Your task to perform on an android device: turn off sleep mode Image 0: 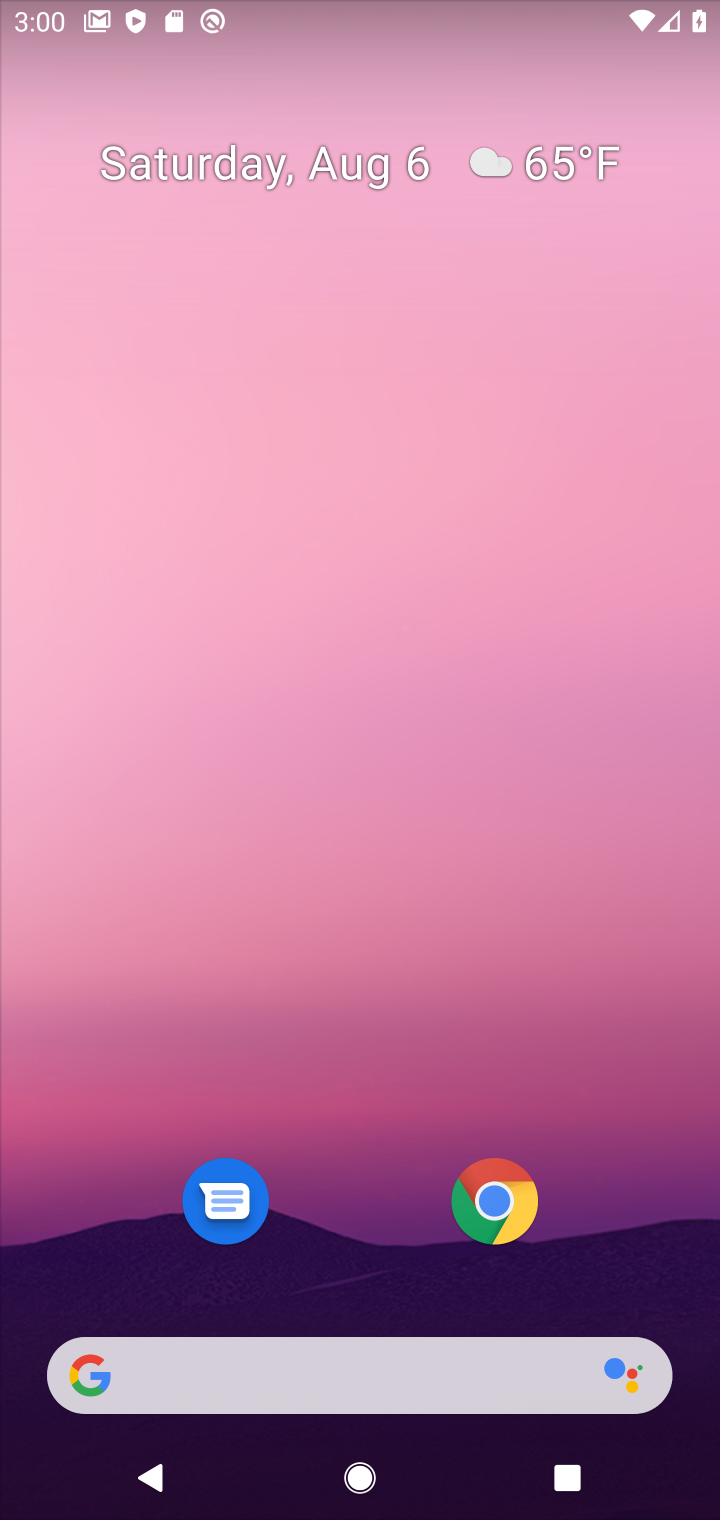
Step 0: drag from (504, 300) to (554, 15)
Your task to perform on an android device: turn off sleep mode Image 1: 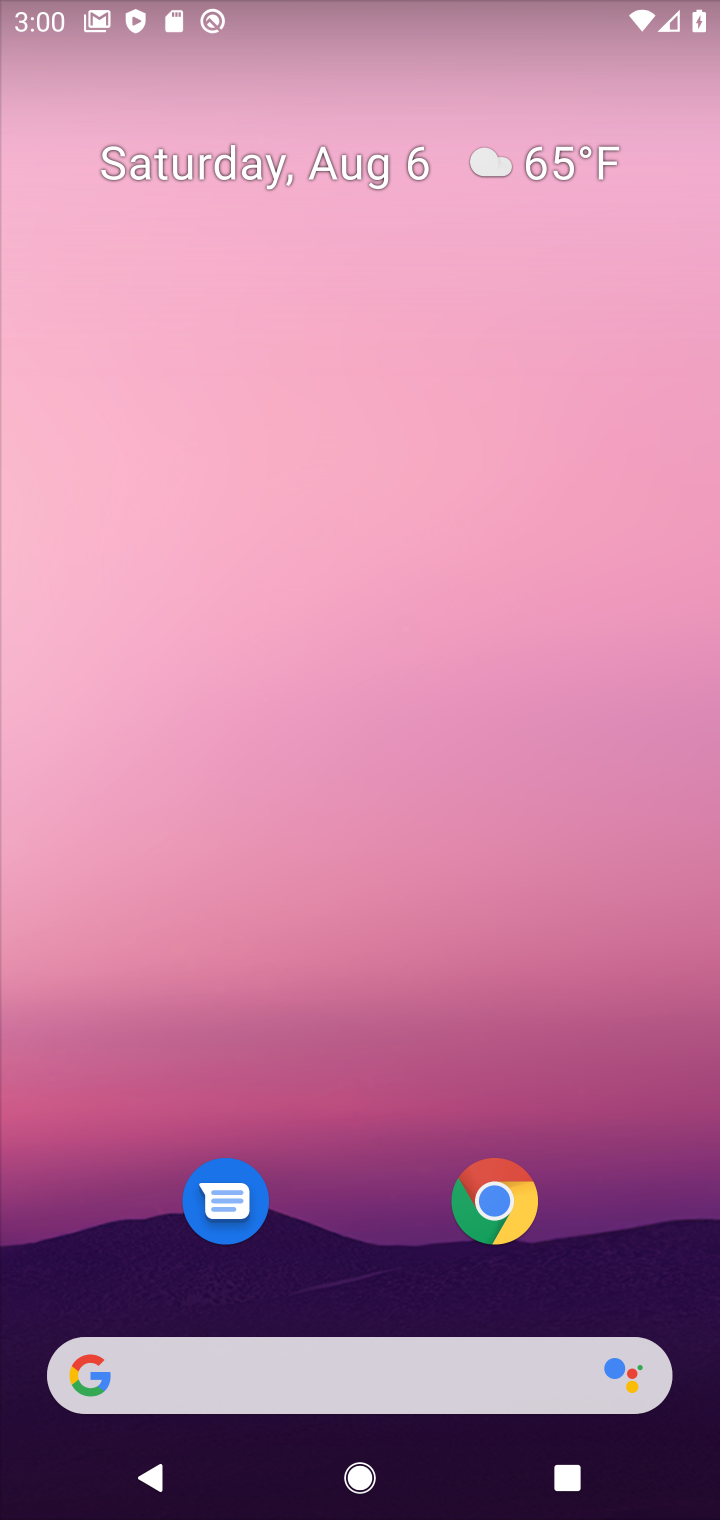
Step 1: click (280, 157)
Your task to perform on an android device: turn off sleep mode Image 2: 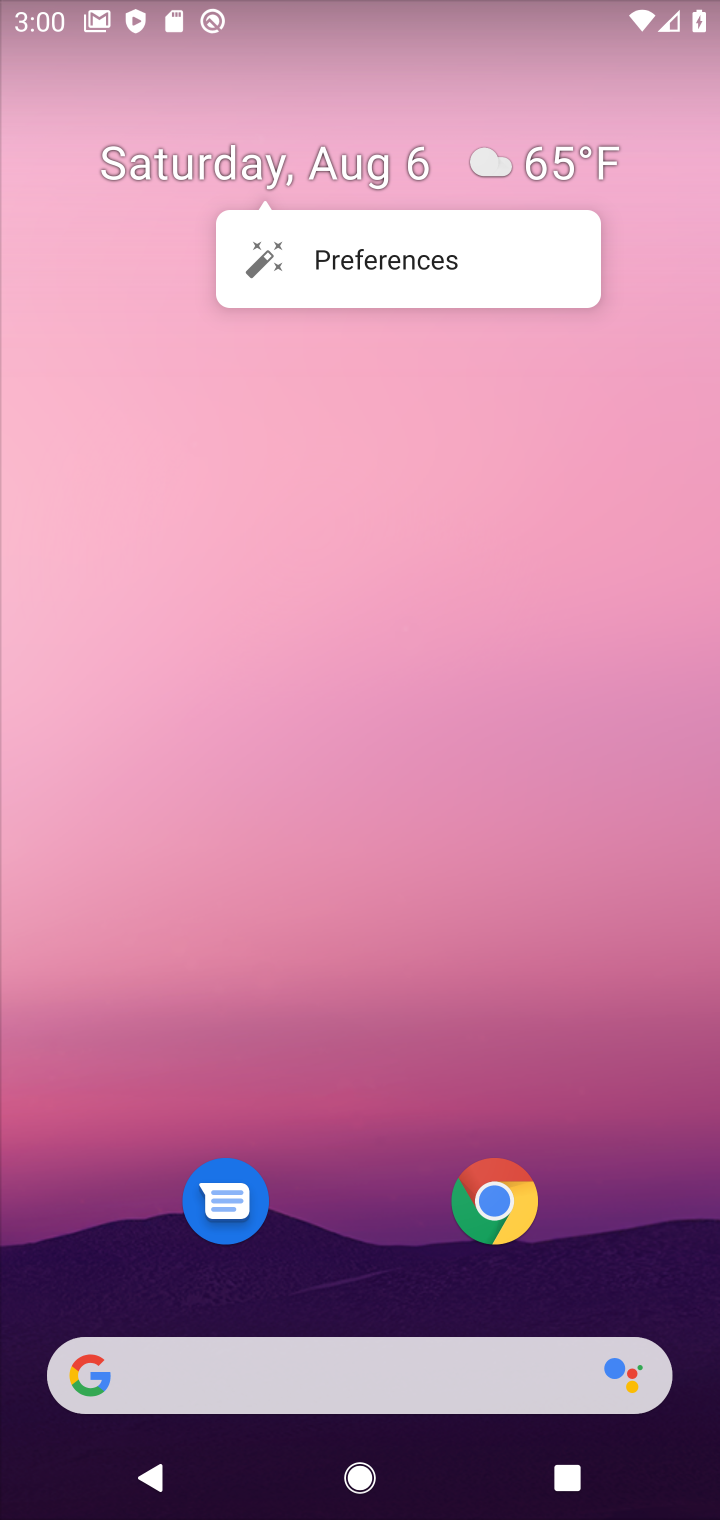
Step 2: click (353, 1499)
Your task to perform on an android device: turn off sleep mode Image 3: 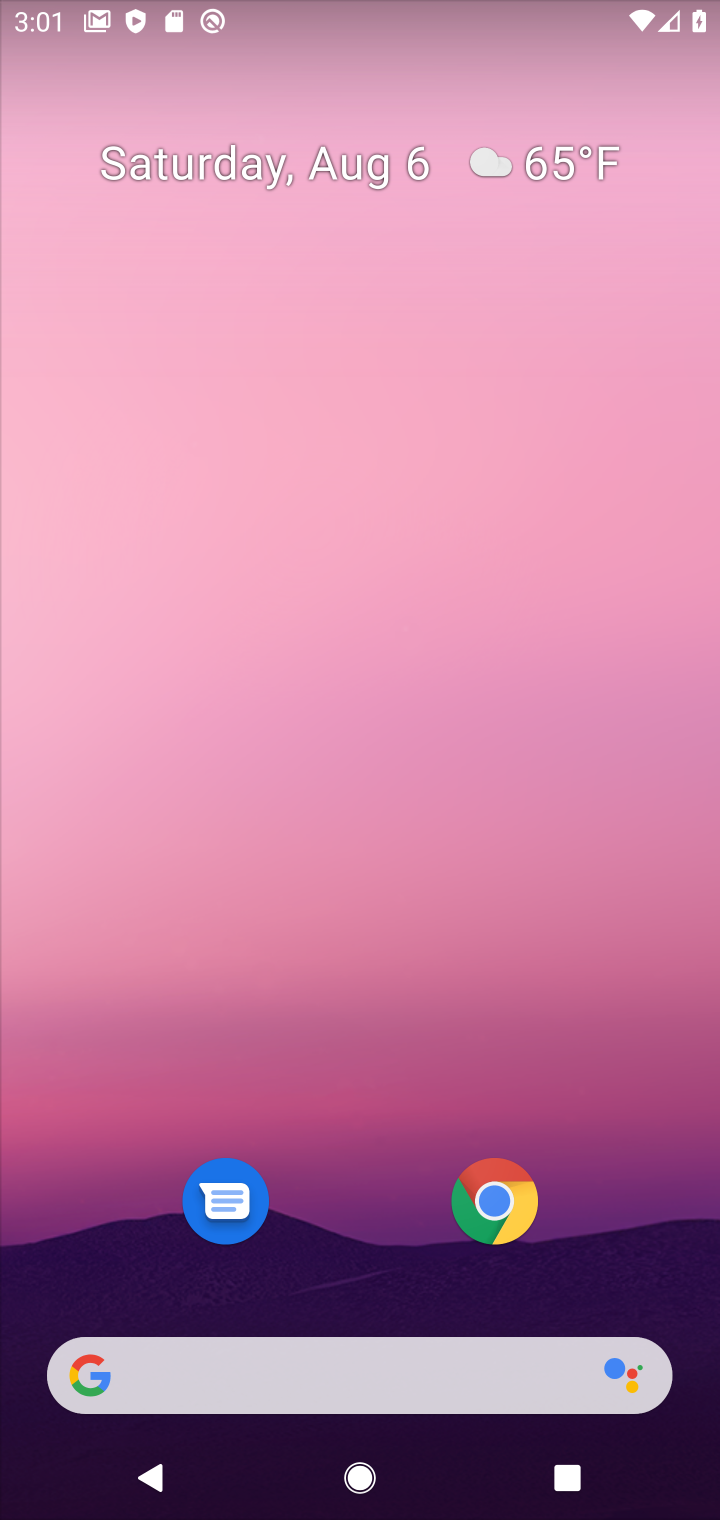
Step 3: drag from (251, 1464) to (455, 16)
Your task to perform on an android device: turn off sleep mode Image 4: 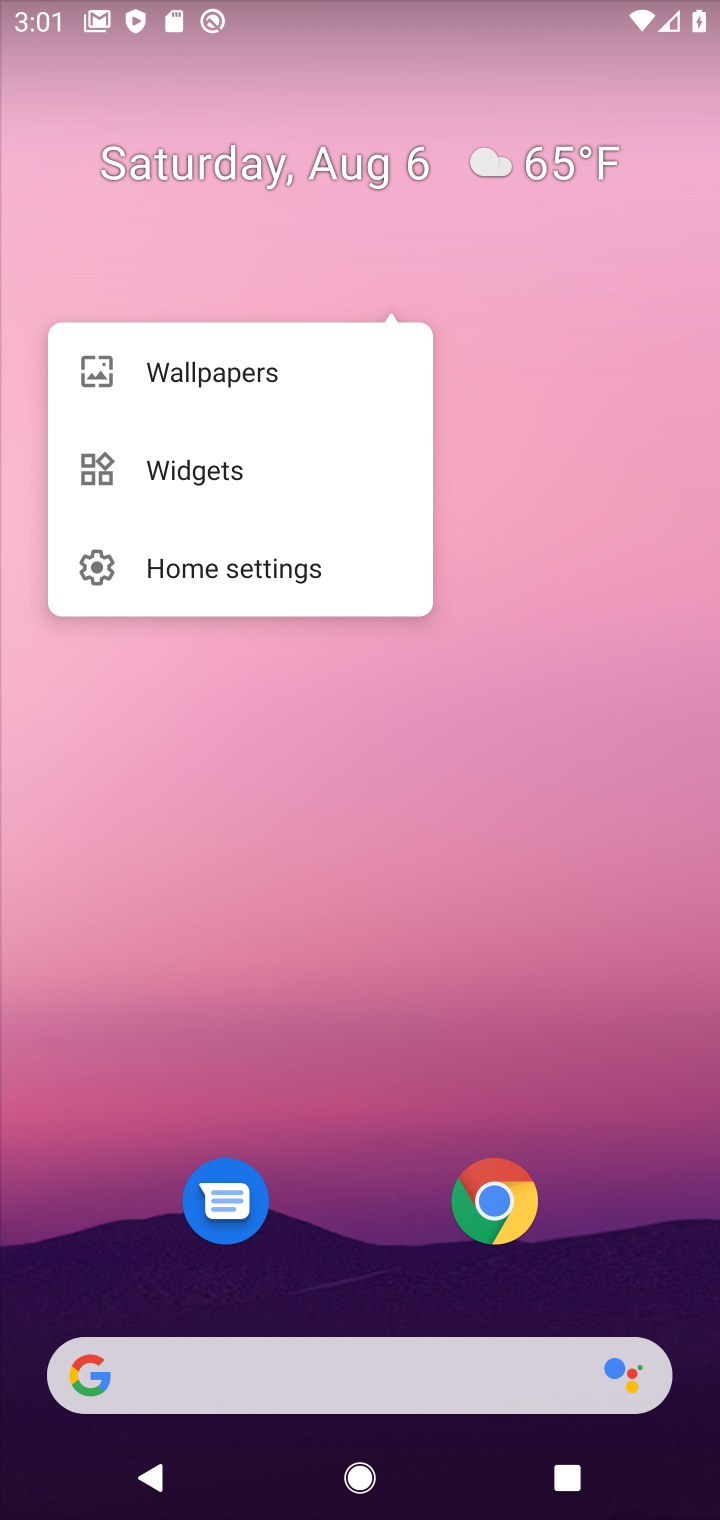
Step 4: click (362, 1491)
Your task to perform on an android device: turn off sleep mode Image 5: 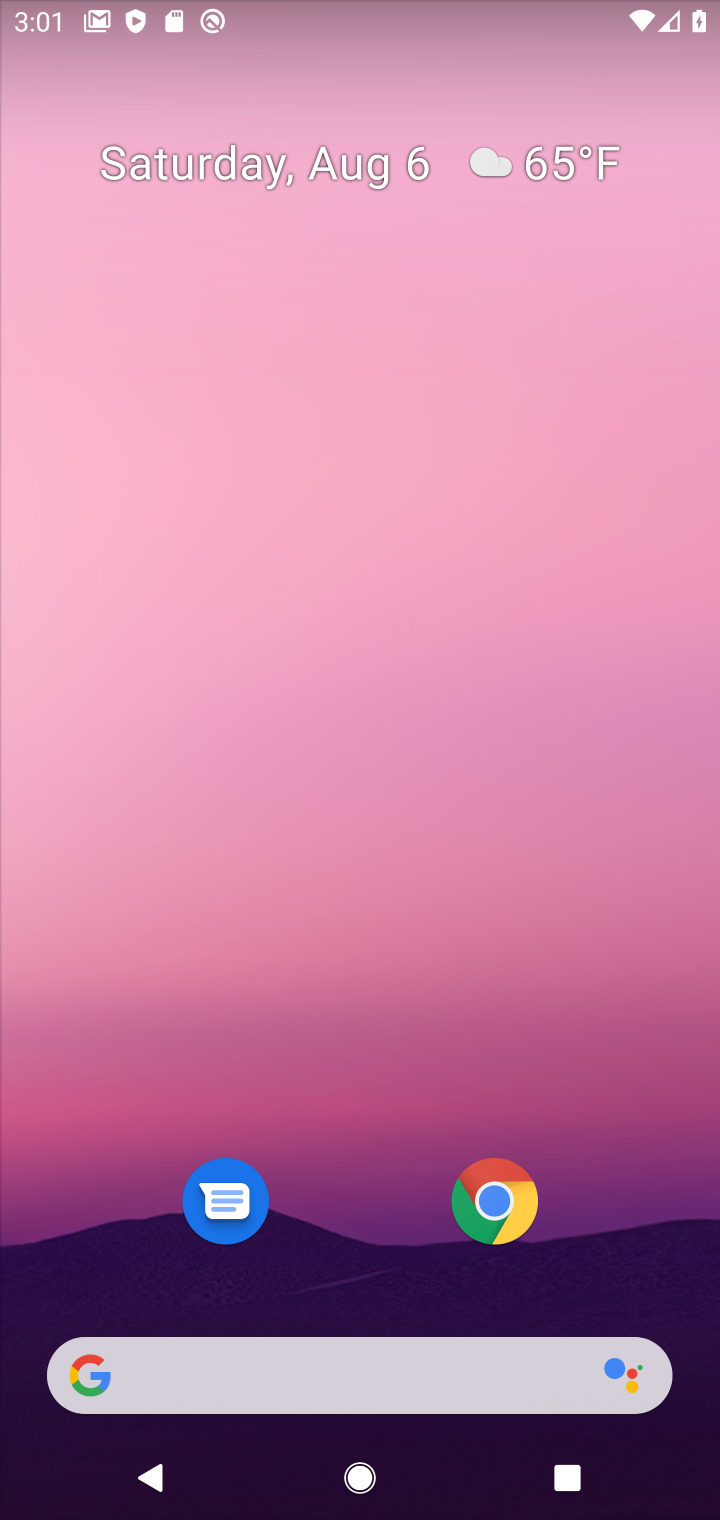
Step 5: drag from (395, 886) to (512, 74)
Your task to perform on an android device: turn off sleep mode Image 6: 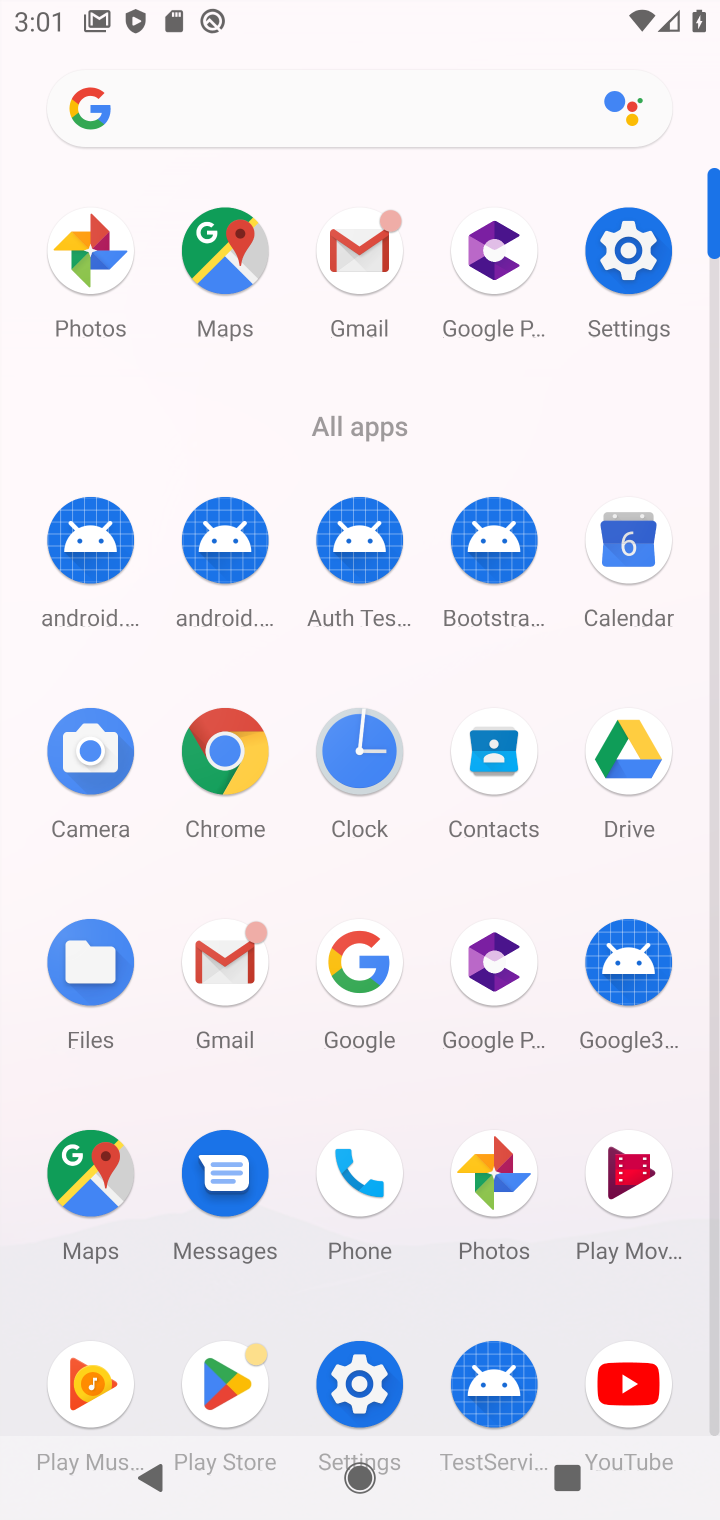
Step 6: click (646, 226)
Your task to perform on an android device: turn off sleep mode Image 7: 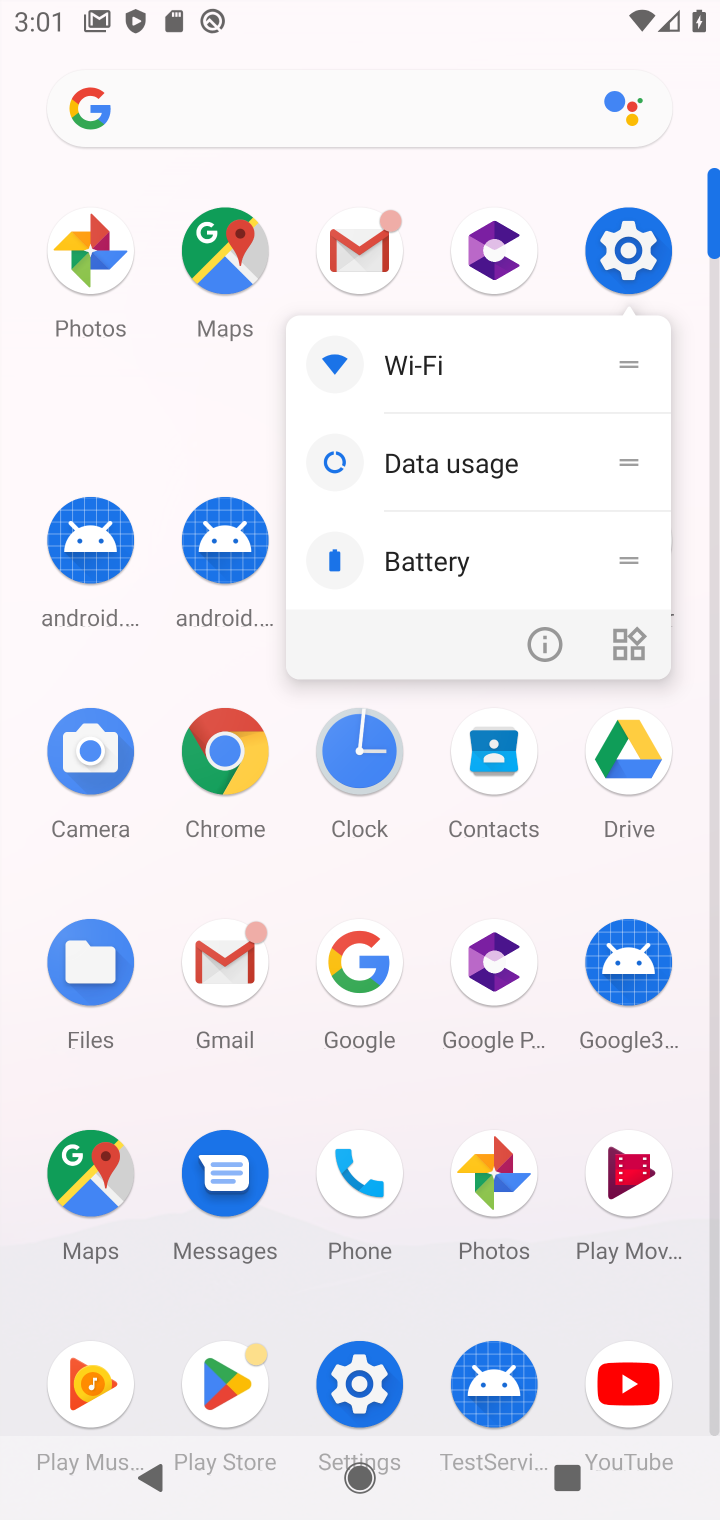
Step 7: click (646, 226)
Your task to perform on an android device: turn off sleep mode Image 8: 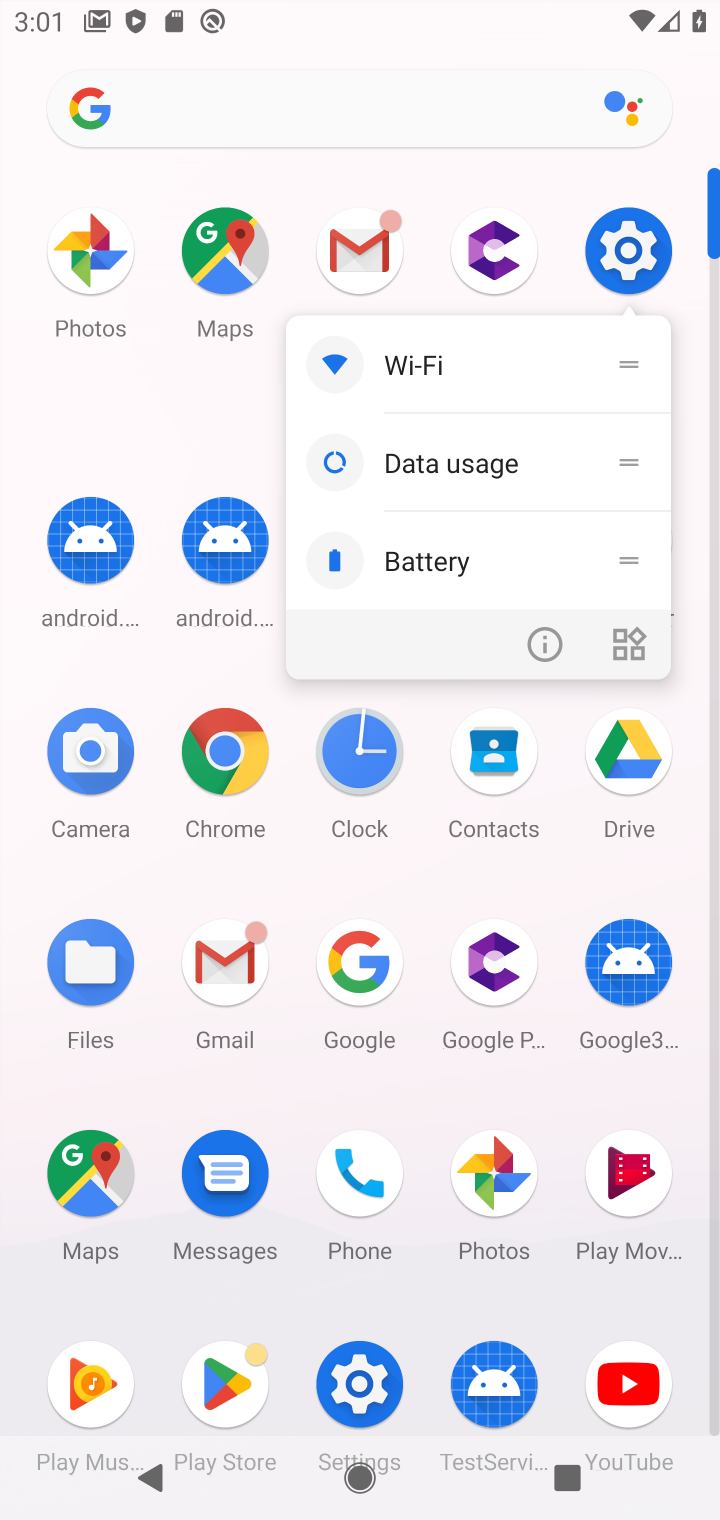
Step 8: click (646, 226)
Your task to perform on an android device: turn off sleep mode Image 9: 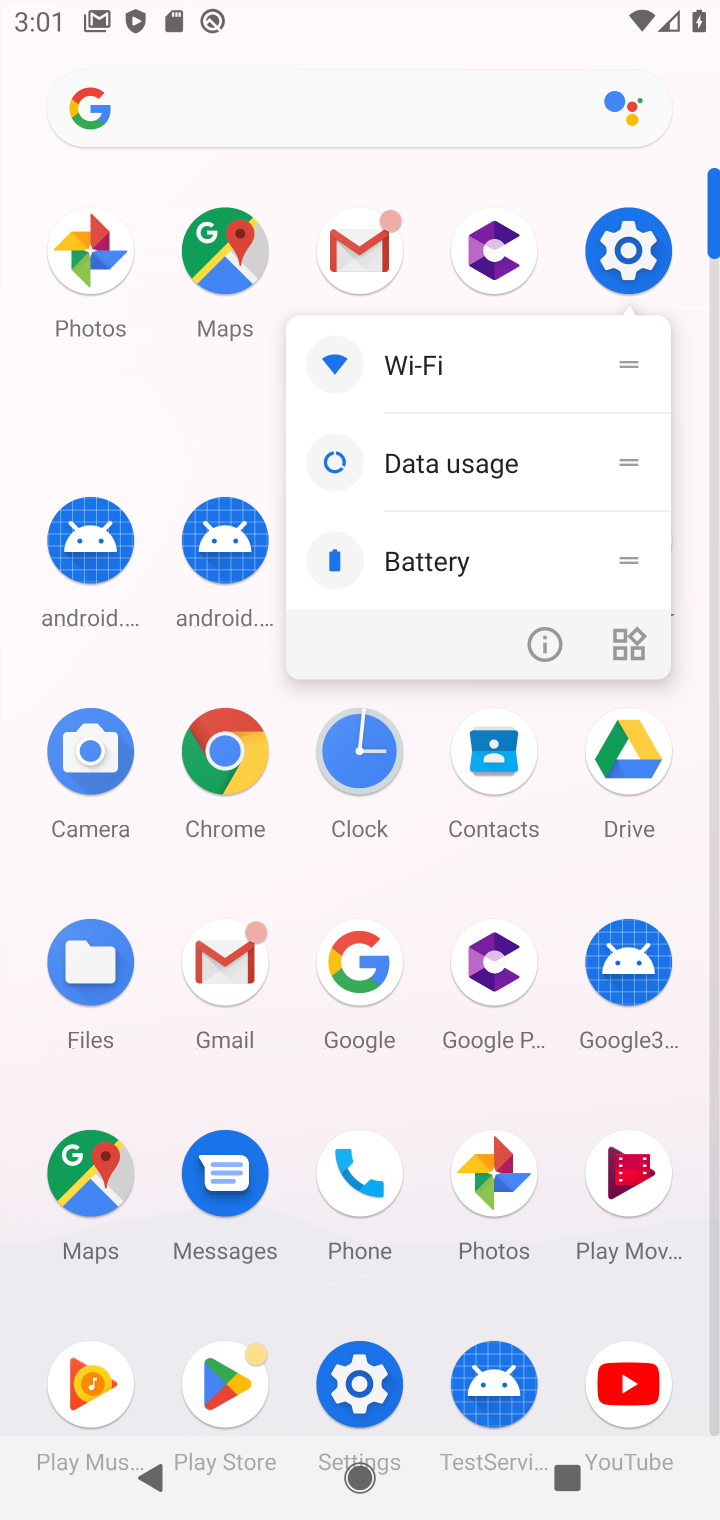
Step 9: click (611, 230)
Your task to perform on an android device: turn off sleep mode Image 10: 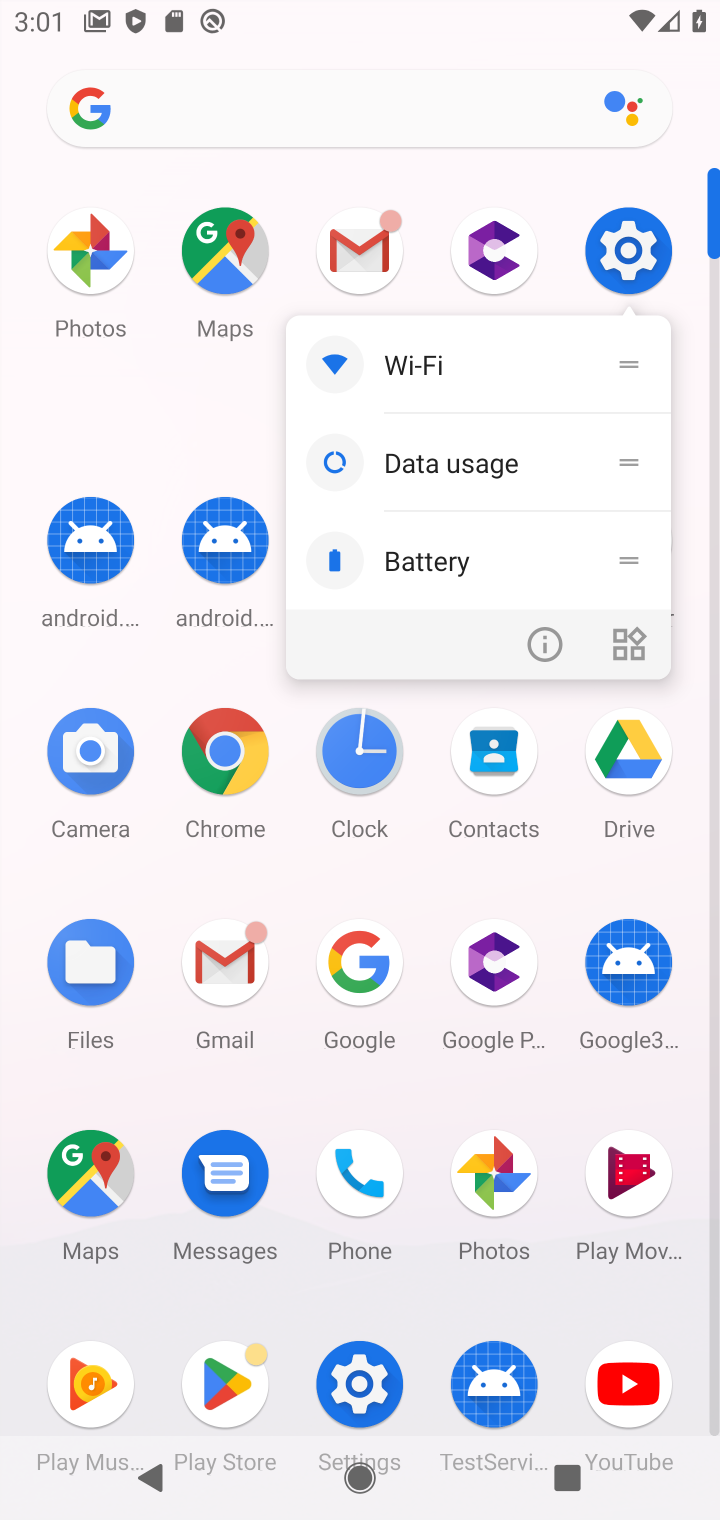
Step 10: click (636, 271)
Your task to perform on an android device: turn off sleep mode Image 11: 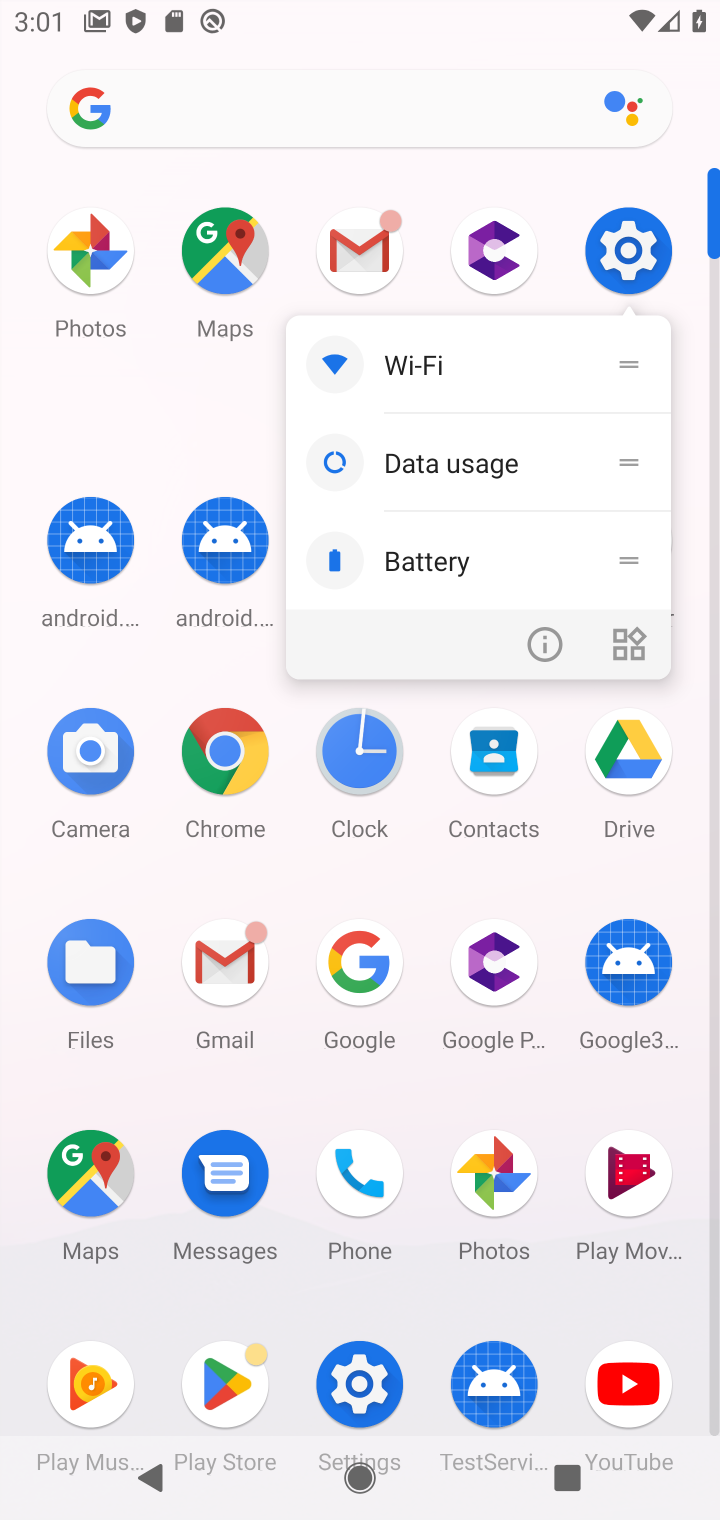
Step 11: click (636, 271)
Your task to perform on an android device: turn off sleep mode Image 12: 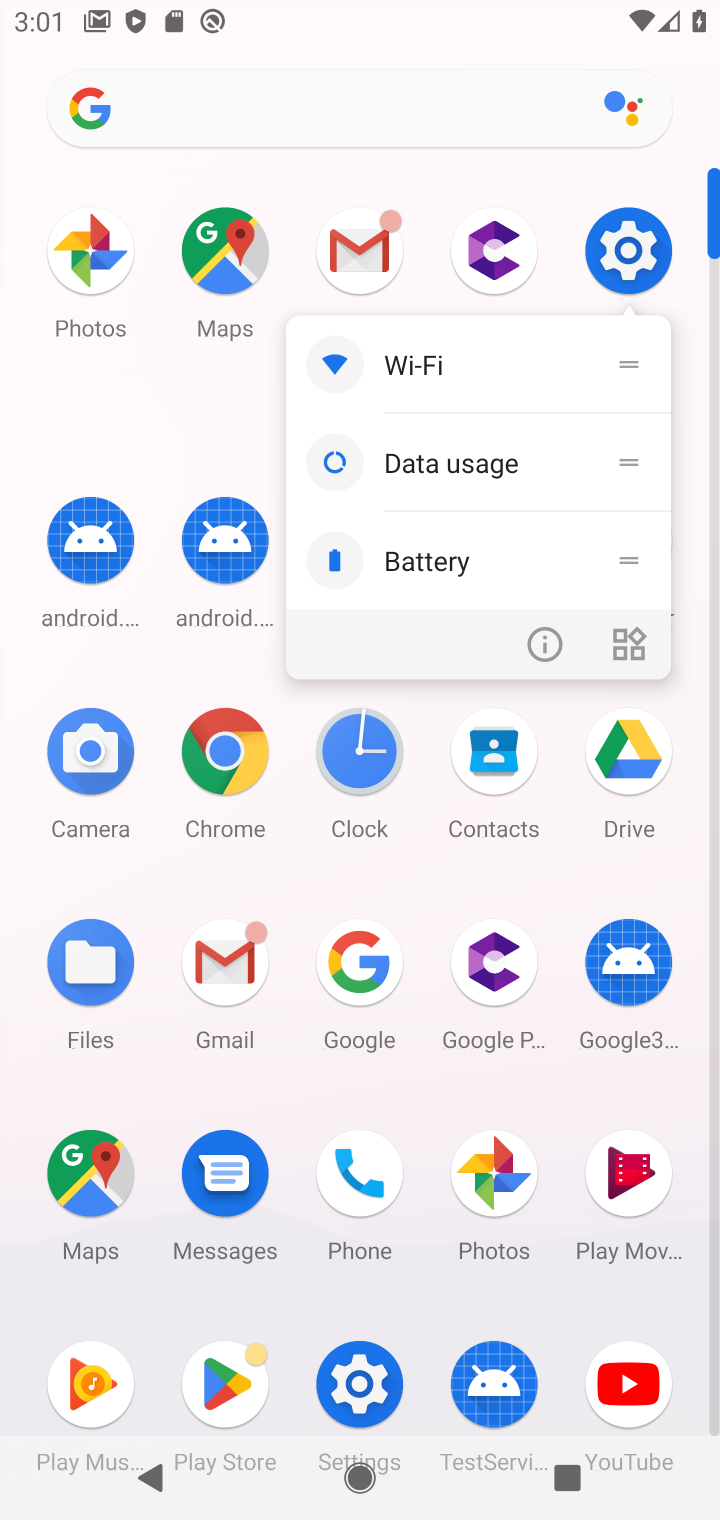
Step 12: click (632, 271)
Your task to perform on an android device: turn off sleep mode Image 13: 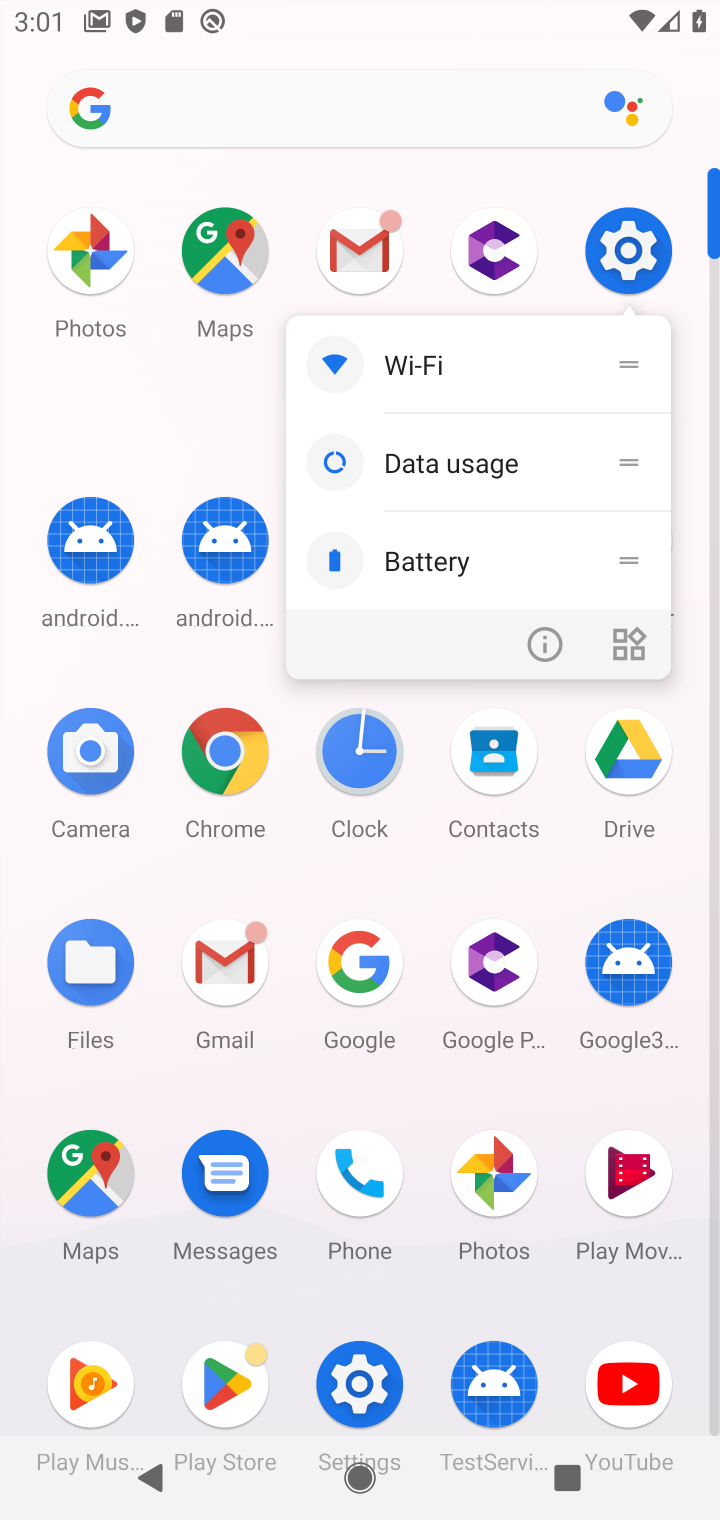
Step 13: click (632, 271)
Your task to perform on an android device: turn off sleep mode Image 14: 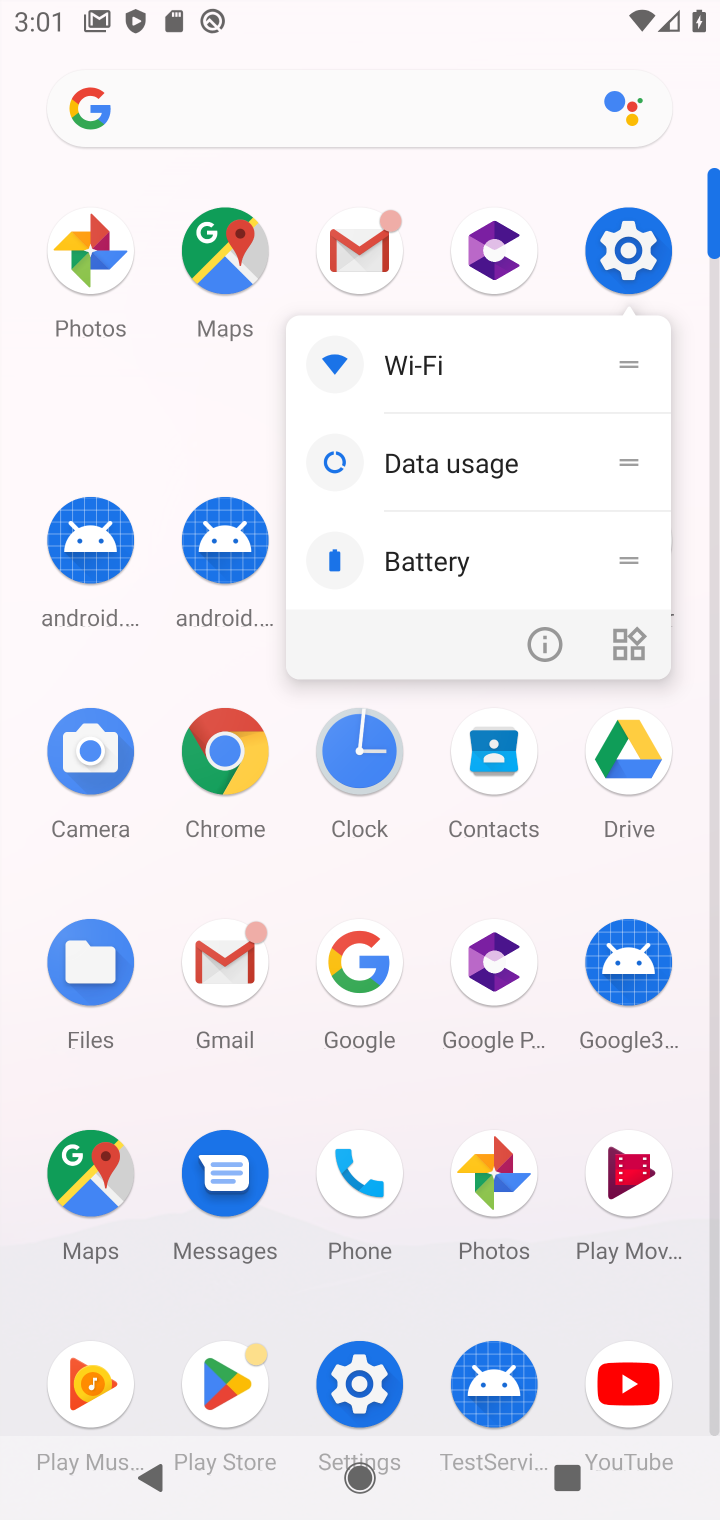
Step 14: click (624, 199)
Your task to perform on an android device: turn off sleep mode Image 15: 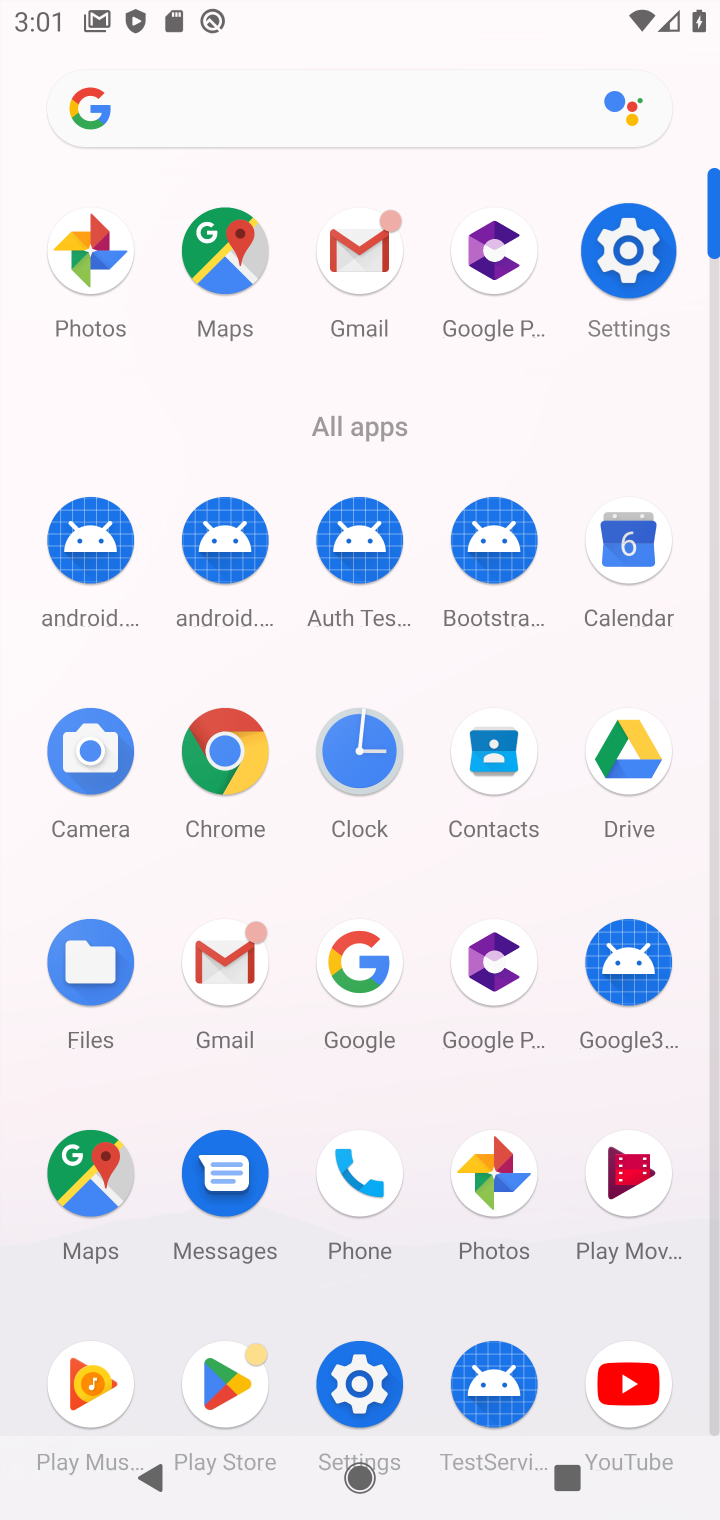
Step 15: click (641, 290)
Your task to perform on an android device: turn off sleep mode Image 16: 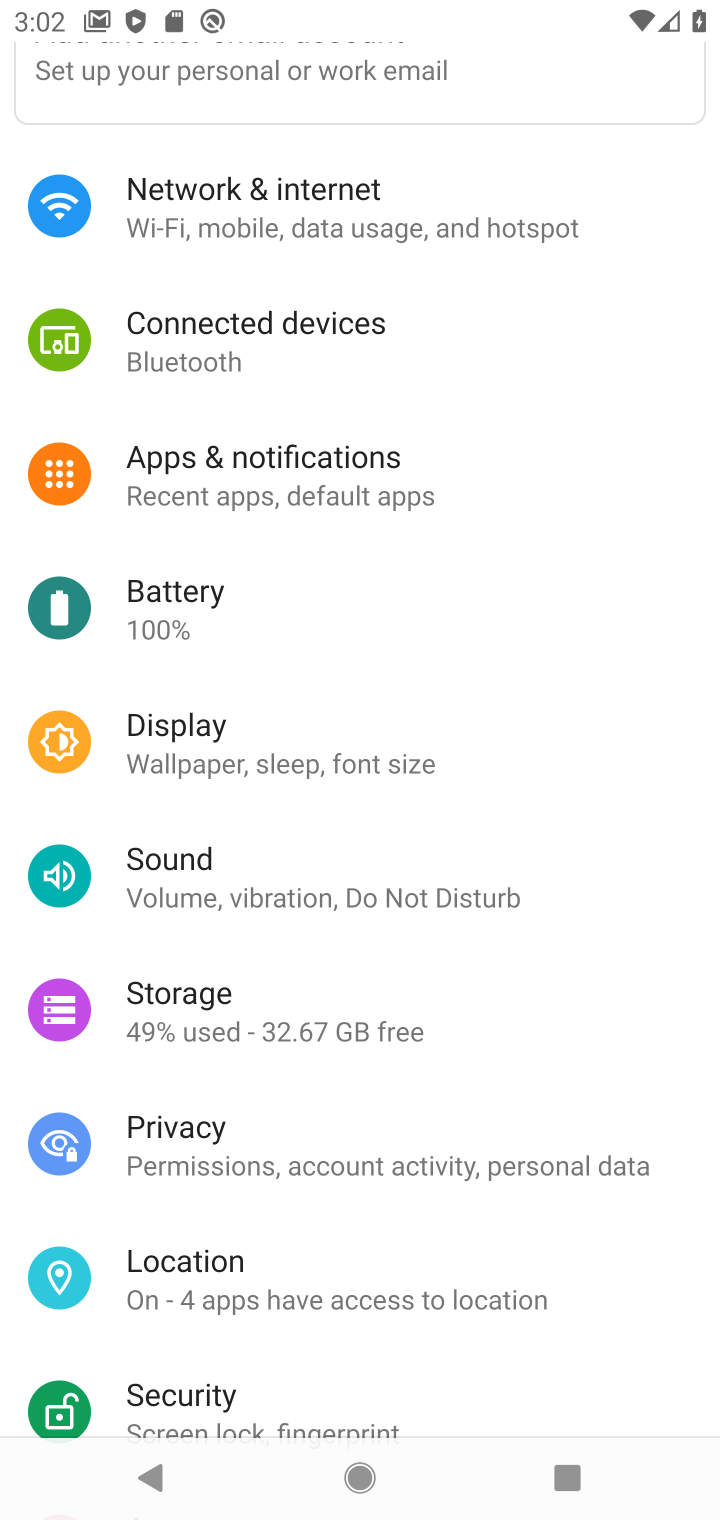
Step 16: click (455, 755)
Your task to perform on an android device: turn off sleep mode Image 17: 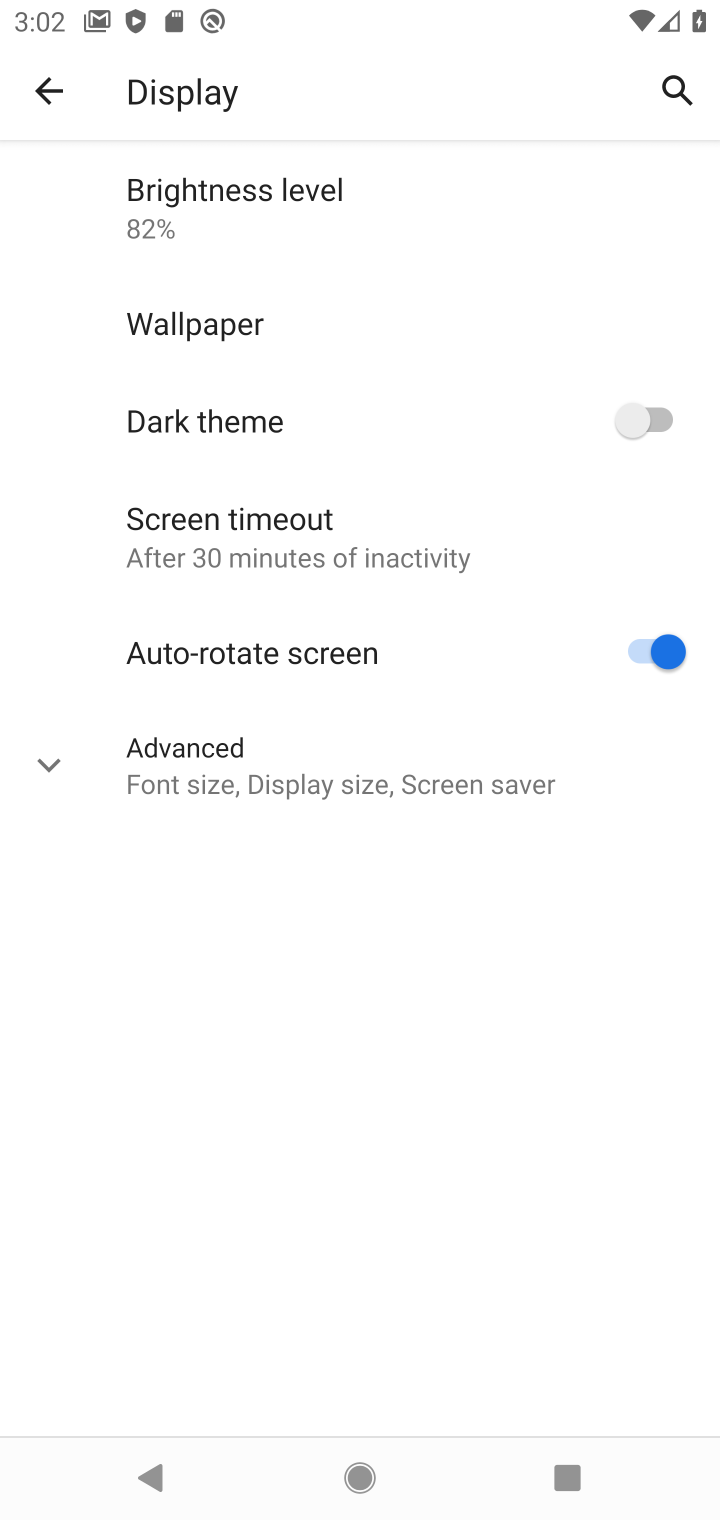
Step 17: task complete